Your task to perform on an android device: check battery use Image 0: 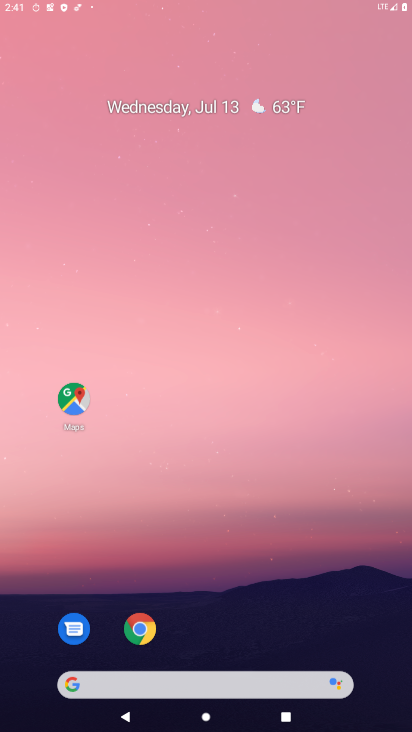
Step 0: drag from (180, 542) to (180, 138)
Your task to perform on an android device: check battery use Image 1: 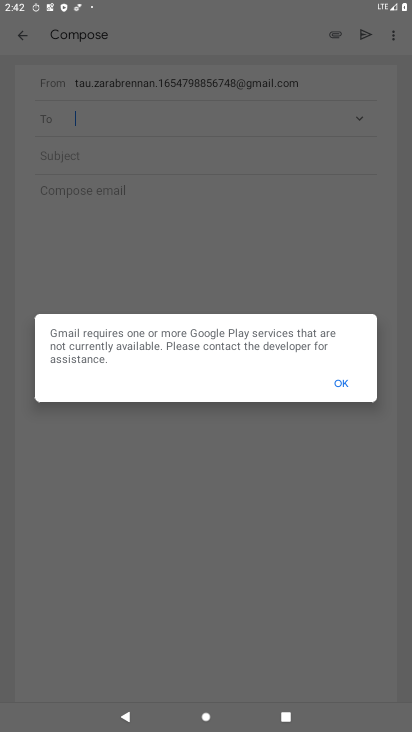
Step 1: click (345, 380)
Your task to perform on an android device: check battery use Image 2: 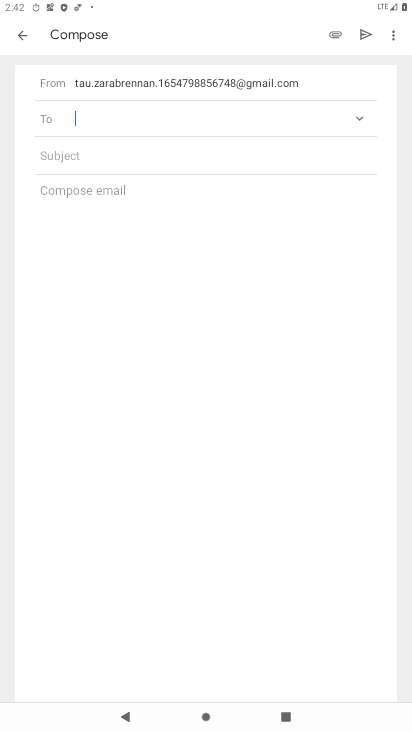
Step 2: press home button
Your task to perform on an android device: check battery use Image 3: 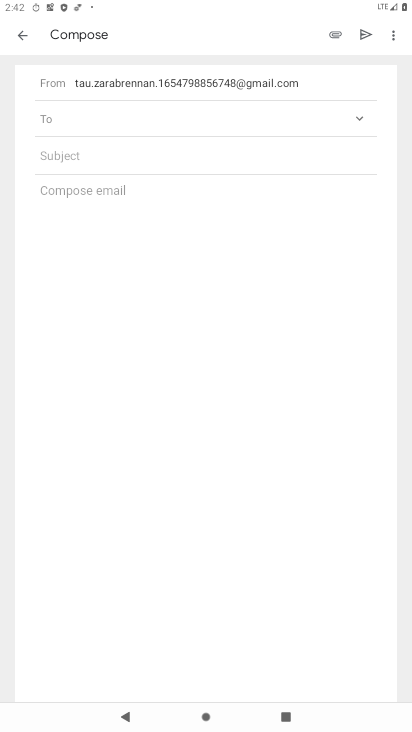
Step 3: drag from (231, 630) to (262, 144)
Your task to perform on an android device: check battery use Image 4: 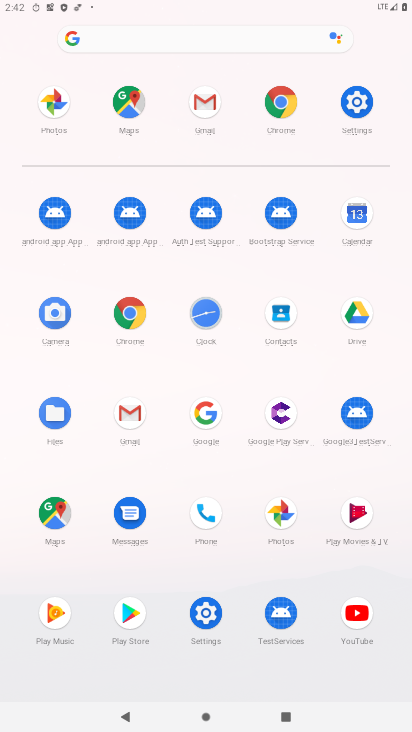
Step 4: click (198, 609)
Your task to perform on an android device: check battery use Image 5: 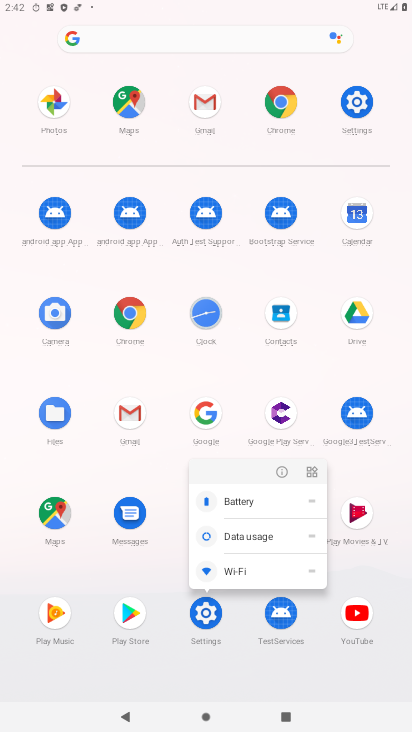
Step 5: click (283, 470)
Your task to perform on an android device: check battery use Image 6: 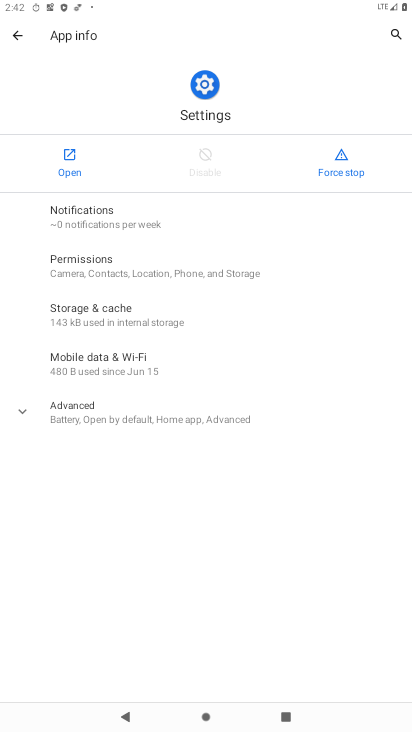
Step 6: click (63, 160)
Your task to perform on an android device: check battery use Image 7: 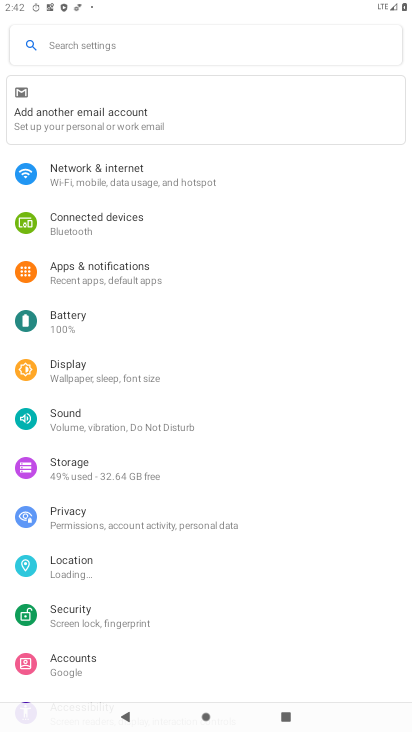
Step 7: click (75, 324)
Your task to perform on an android device: check battery use Image 8: 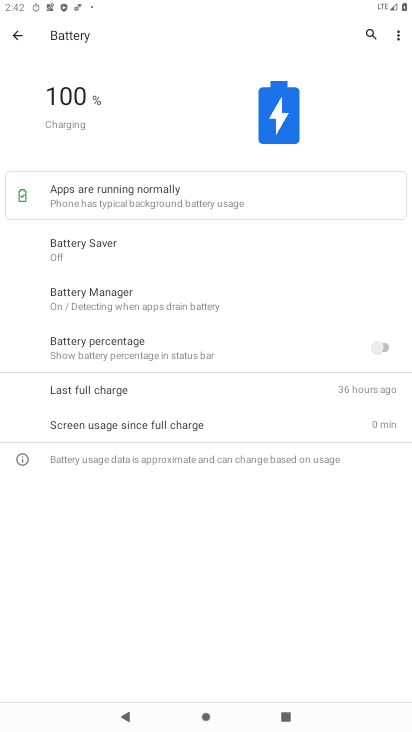
Step 8: click (401, 33)
Your task to perform on an android device: check battery use Image 9: 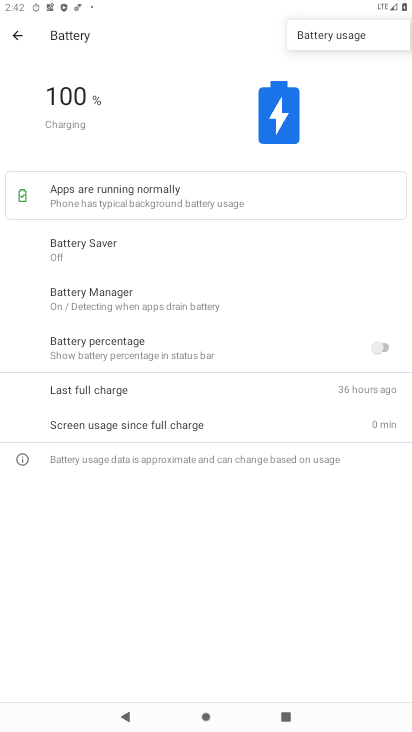
Step 9: click (349, 36)
Your task to perform on an android device: check battery use Image 10: 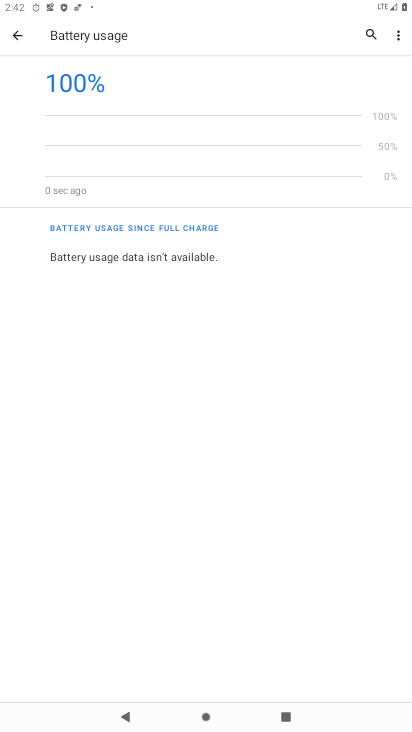
Step 10: click (244, 176)
Your task to perform on an android device: check battery use Image 11: 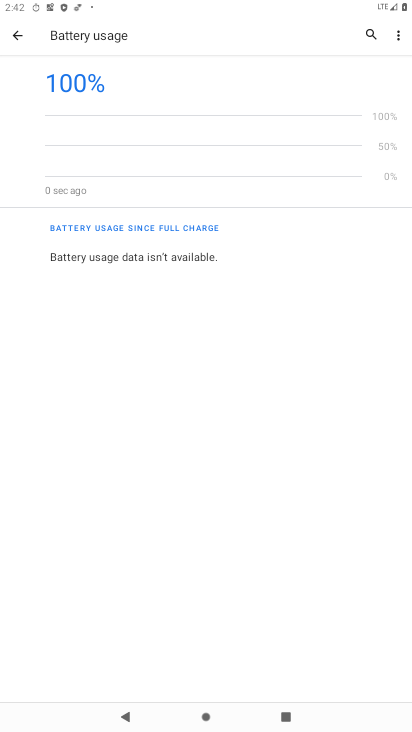
Step 11: task complete